Your task to perform on an android device: turn off data saver in the chrome app Image 0: 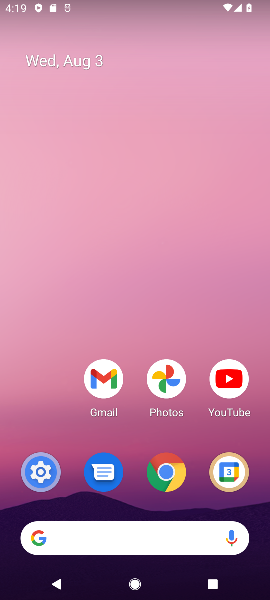
Step 0: drag from (49, 404) to (144, 26)
Your task to perform on an android device: turn off data saver in the chrome app Image 1: 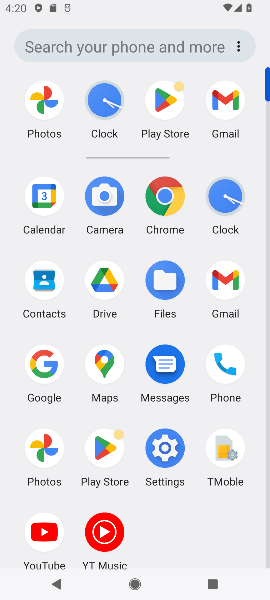
Step 1: click (176, 195)
Your task to perform on an android device: turn off data saver in the chrome app Image 2: 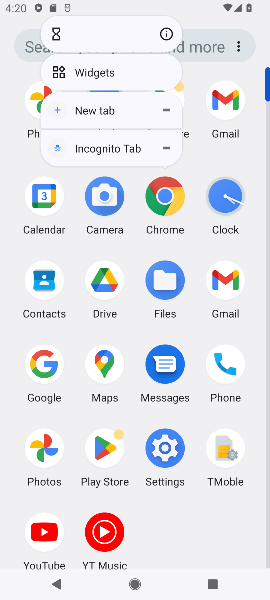
Step 2: click (176, 198)
Your task to perform on an android device: turn off data saver in the chrome app Image 3: 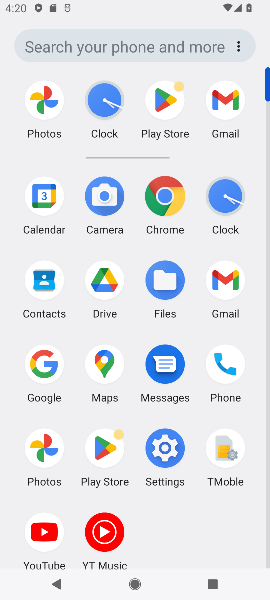
Step 3: click (168, 194)
Your task to perform on an android device: turn off data saver in the chrome app Image 4: 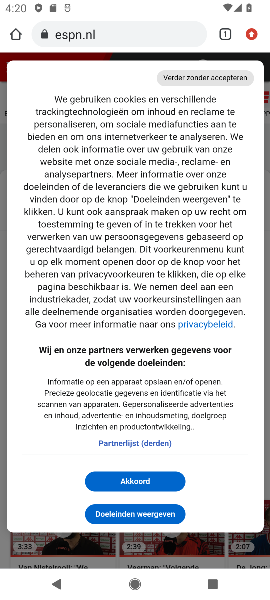
Step 4: drag from (266, 30) to (182, 471)
Your task to perform on an android device: turn off data saver in the chrome app Image 5: 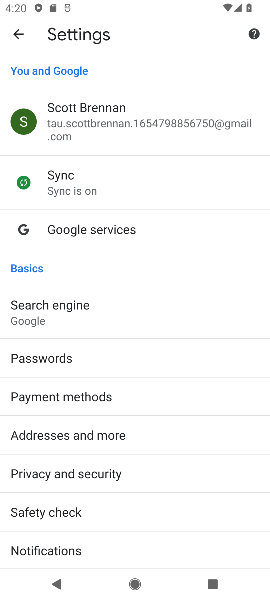
Step 5: drag from (184, 457) to (222, 75)
Your task to perform on an android device: turn off data saver in the chrome app Image 6: 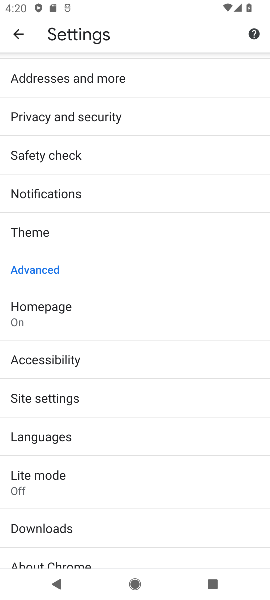
Step 6: click (78, 466)
Your task to perform on an android device: turn off data saver in the chrome app Image 7: 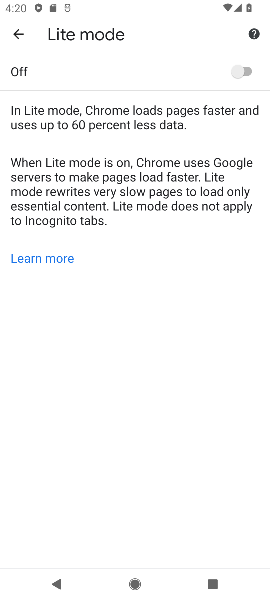
Step 7: task complete